Your task to perform on an android device: stop showing notifications on the lock screen Image 0: 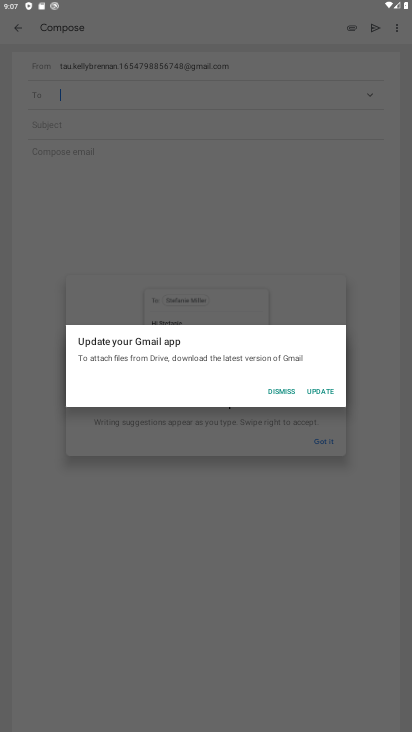
Step 0: press home button
Your task to perform on an android device: stop showing notifications on the lock screen Image 1: 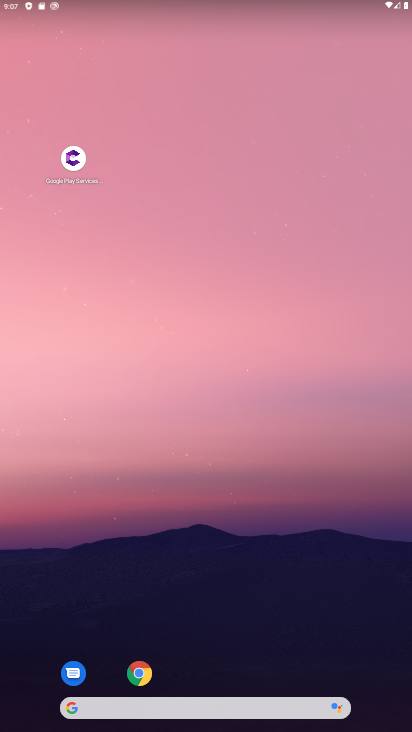
Step 1: drag from (206, 659) to (205, 132)
Your task to perform on an android device: stop showing notifications on the lock screen Image 2: 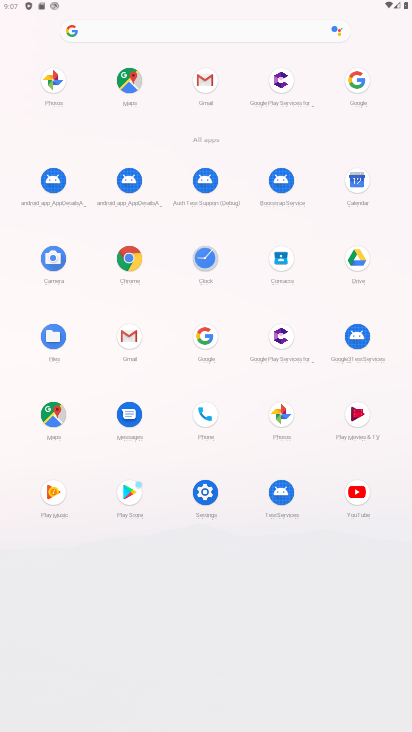
Step 2: click (207, 503)
Your task to perform on an android device: stop showing notifications on the lock screen Image 3: 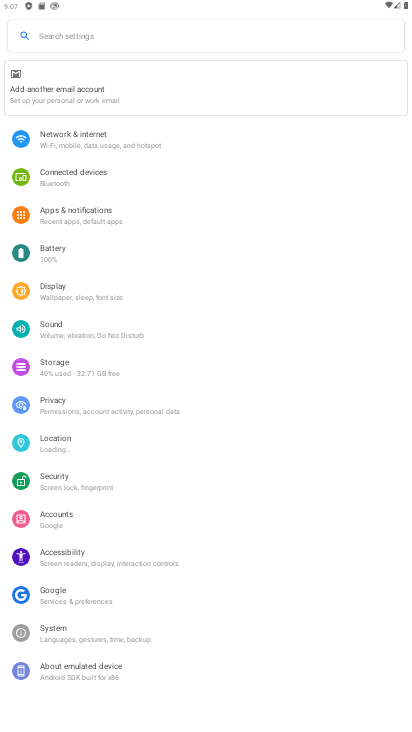
Step 3: click (87, 221)
Your task to perform on an android device: stop showing notifications on the lock screen Image 4: 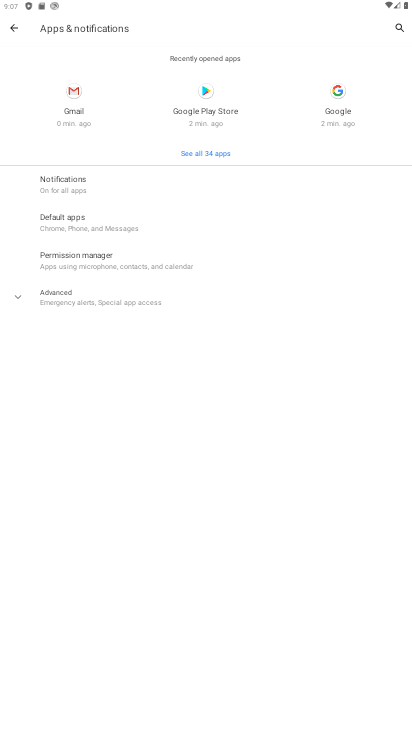
Step 4: click (58, 189)
Your task to perform on an android device: stop showing notifications on the lock screen Image 5: 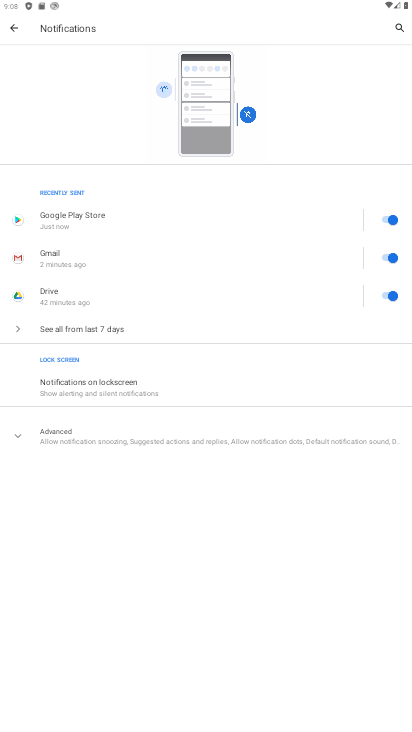
Step 5: click (147, 383)
Your task to perform on an android device: stop showing notifications on the lock screen Image 6: 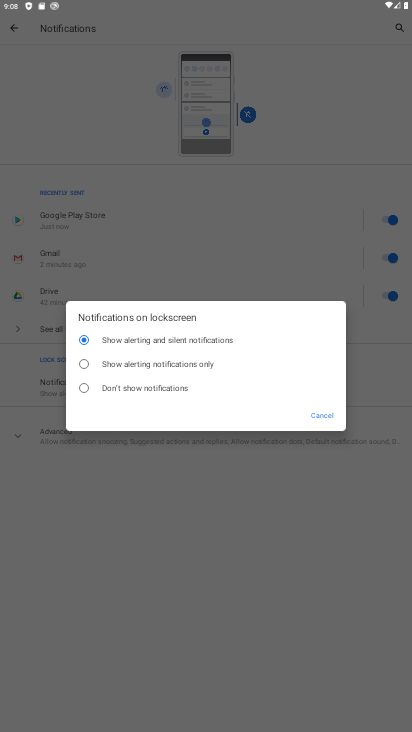
Step 6: click (84, 392)
Your task to perform on an android device: stop showing notifications on the lock screen Image 7: 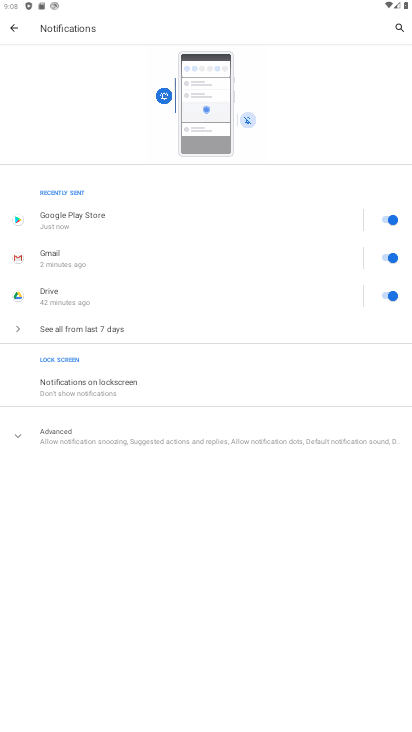
Step 7: task complete